Your task to perform on an android device: Go to Reddit.com Image 0: 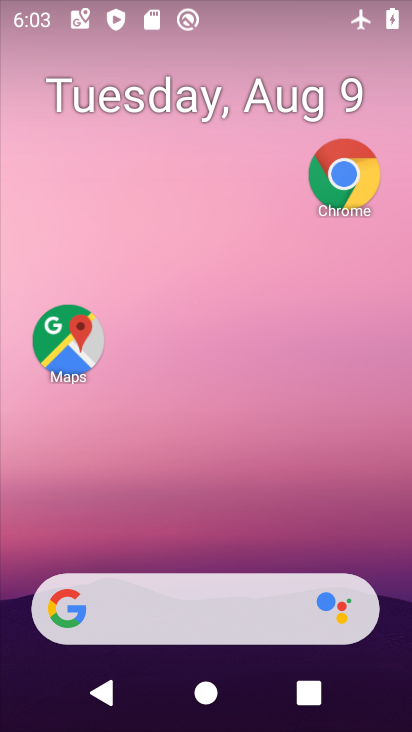
Step 0: drag from (197, 532) to (260, 92)
Your task to perform on an android device: Go to Reddit.com Image 1: 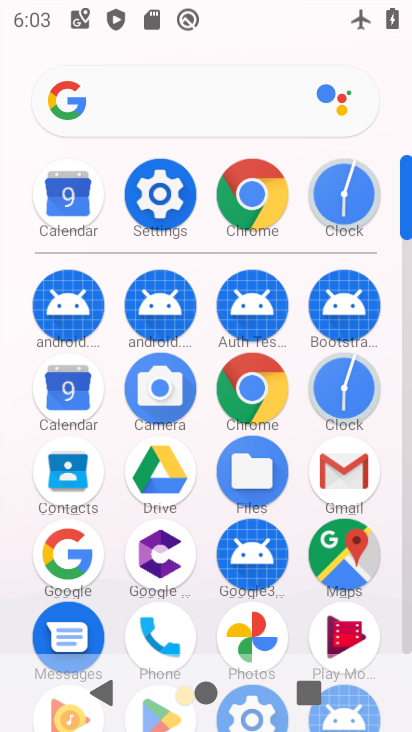
Step 1: drag from (211, 589) to (204, 230)
Your task to perform on an android device: Go to Reddit.com Image 2: 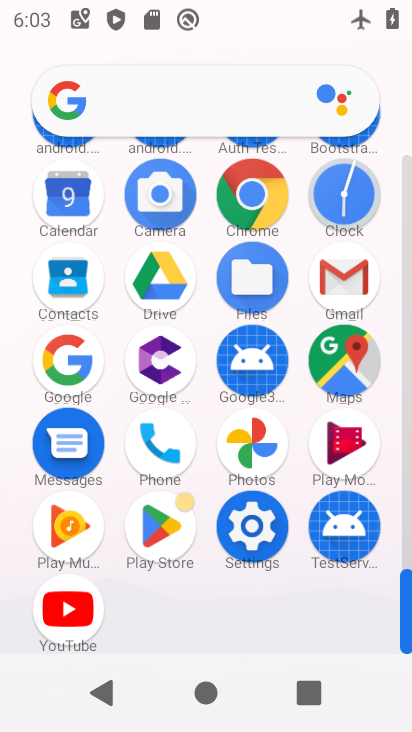
Step 2: drag from (226, 514) to (226, 157)
Your task to perform on an android device: Go to Reddit.com Image 3: 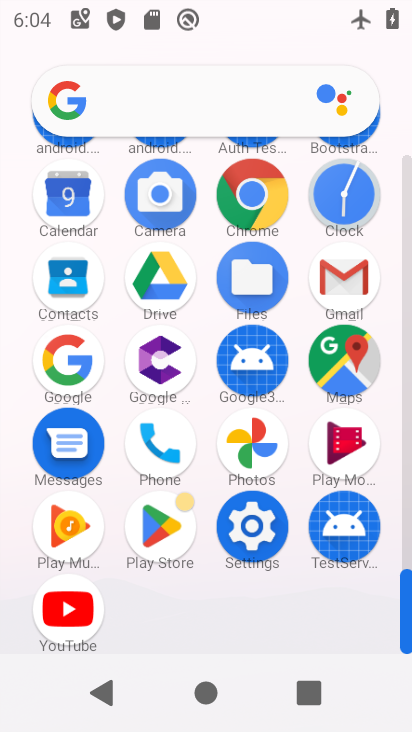
Step 3: click (183, 110)
Your task to perform on an android device: Go to Reddit.com Image 4: 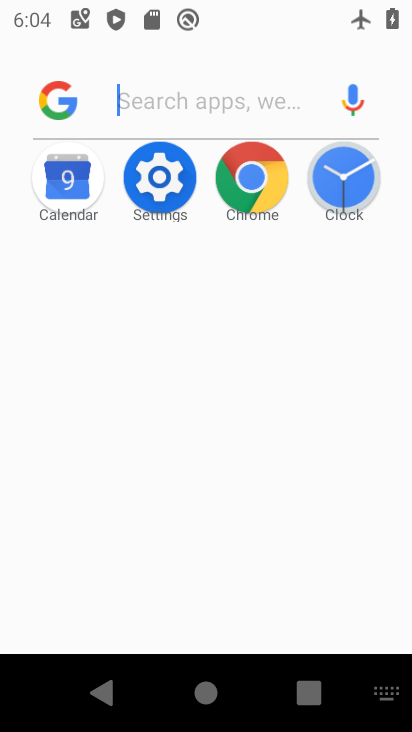
Step 4: type "Reddit.com"
Your task to perform on an android device: Go to Reddit.com Image 5: 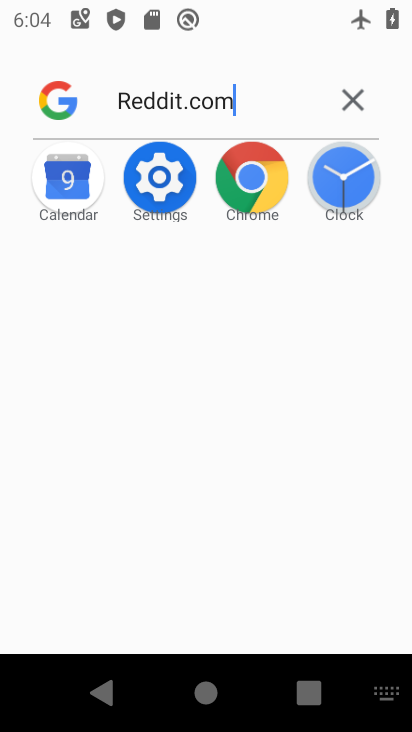
Step 5: type ""
Your task to perform on an android device: Go to Reddit.com Image 6: 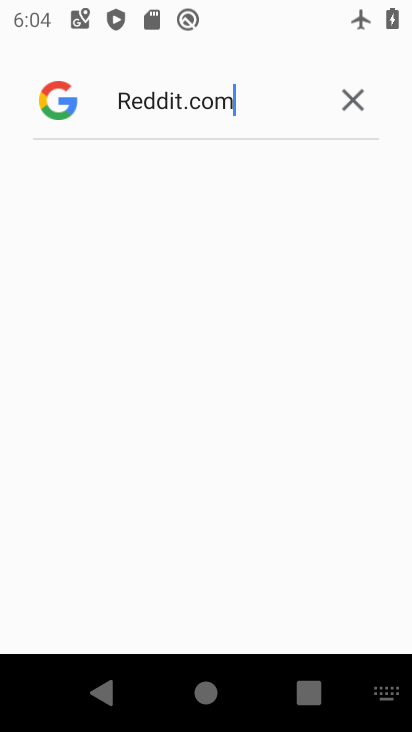
Step 6: click (164, 181)
Your task to perform on an android device: Go to Reddit.com Image 7: 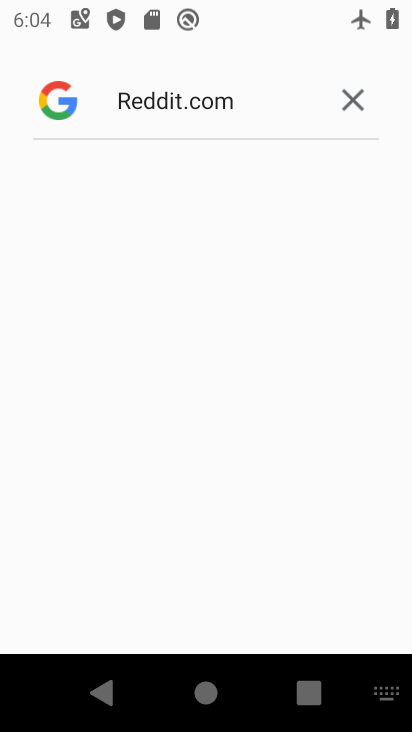
Step 7: click (173, 184)
Your task to perform on an android device: Go to Reddit.com Image 8: 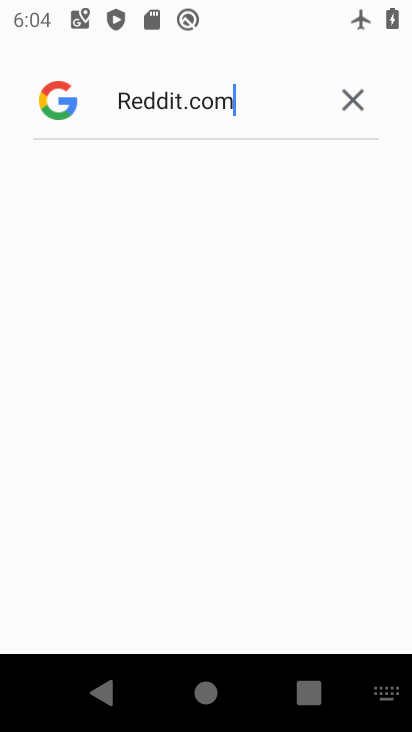
Step 8: click (163, 194)
Your task to perform on an android device: Go to Reddit.com Image 9: 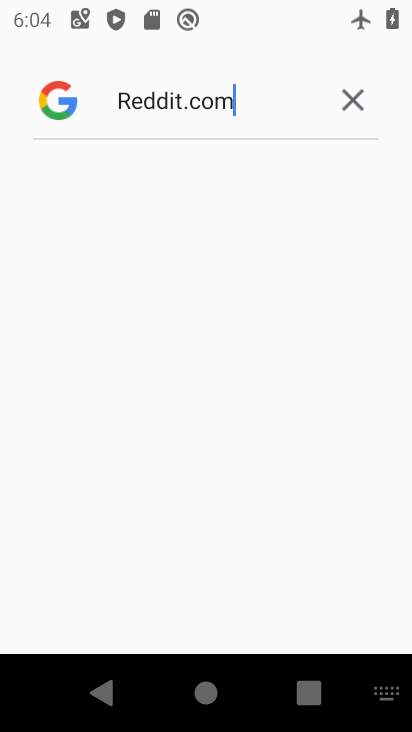
Step 9: click (240, 194)
Your task to perform on an android device: Go to Reddit.com Image 10: 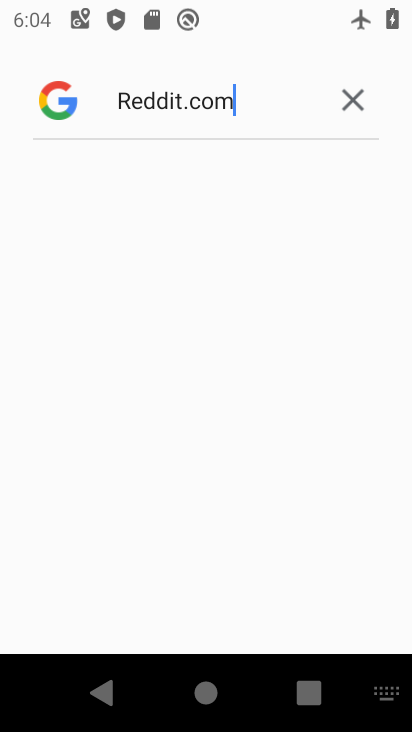
Step 10: click (350, 106)
Your task to perform on an android device: Go to Reddit.com Image 11: 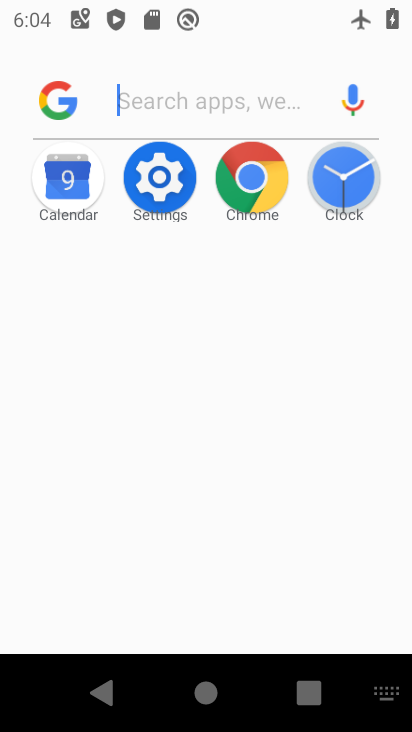
Step 11: press back button
Your task to perform on an android device: Go to Reddit.com Image 12: 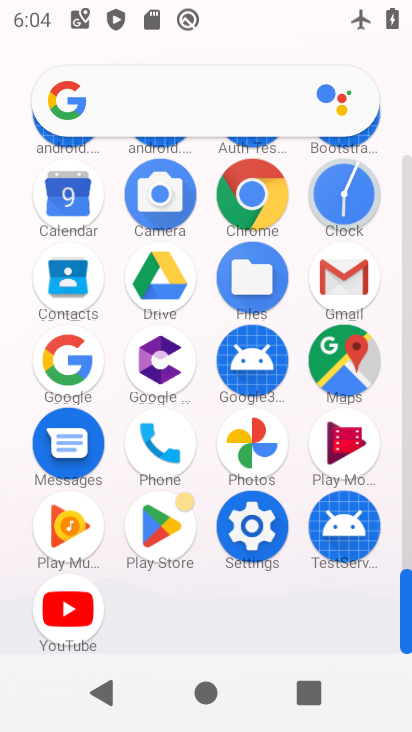
Step 12: drag from (220, 212) to (240, 455)
Your task to perform on an android device: Go to Reddit.com Image 13: 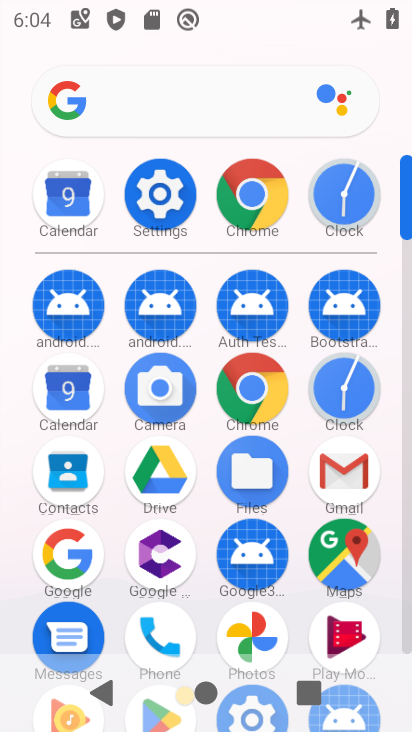
Step 13: drag from (224, 433) to (234, 324)
Your task to perform on an android device: Go to Reddit.com Image 14: 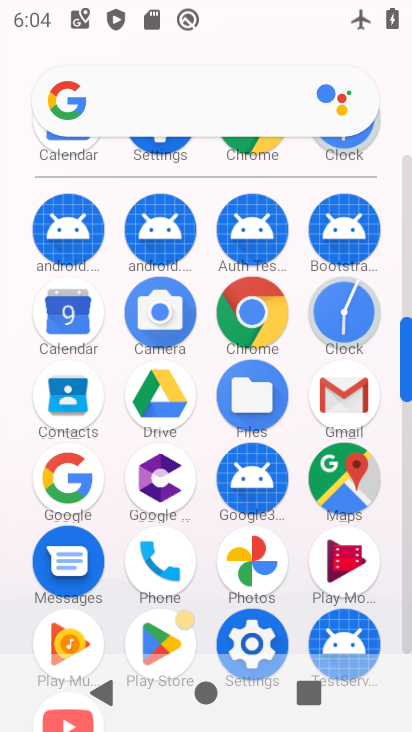
Step 14: drag from (216, 288) to (260, 530)
Your task to perform on an android device: Go to Reddit.com Image 15: 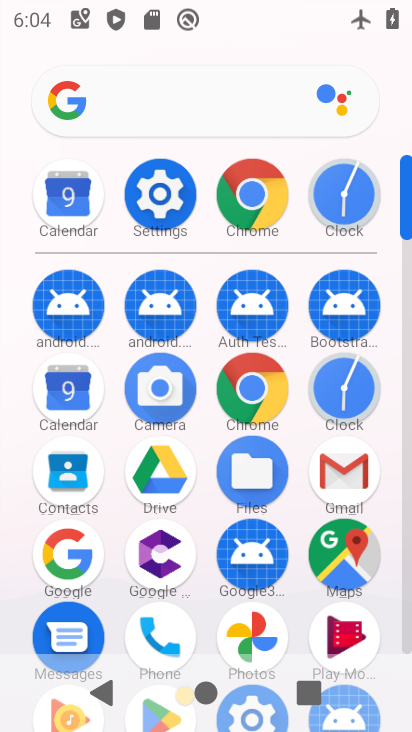
Step 15: drag from (204, 171) to (221, 431)
Your task to perform on an android device: Go to Reddit.com Image 16: 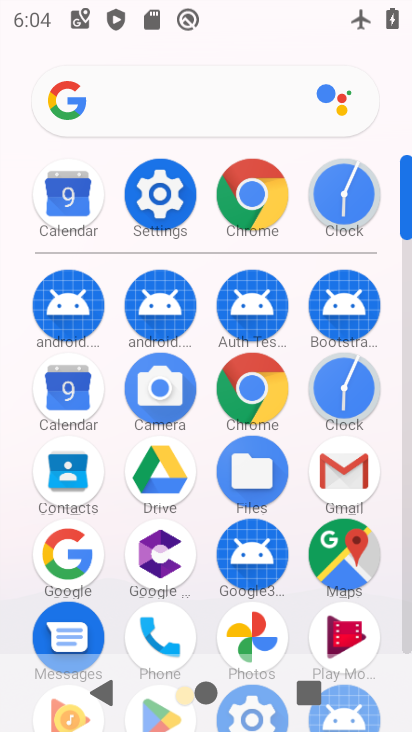
Step 16: click (244, 381)
Your task to perform on an android device: Go to Reddit.com Image 17: 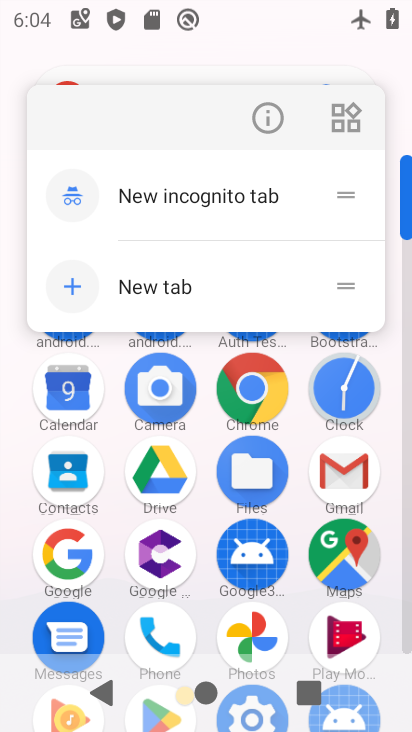
Step 17: click (280, 101)
Your task to perform on an android device: Go to Reddit.com Image 18: 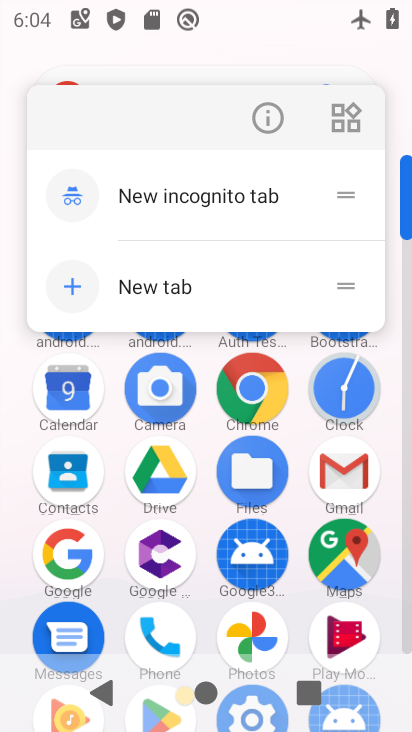
Step 18: click (278, 118)
Your task to perform on an android device: Go to Reddit.com Image 19: 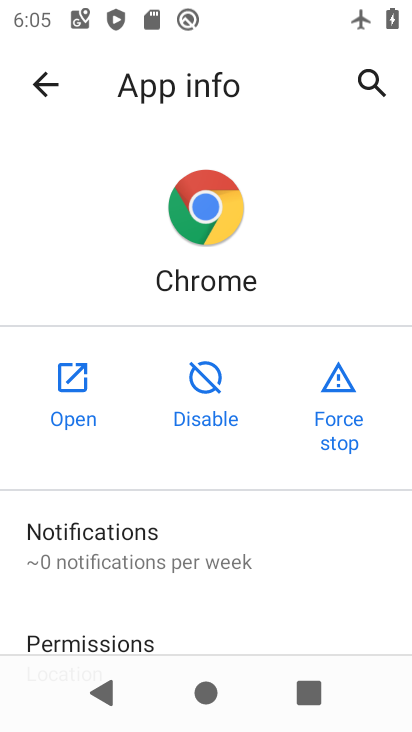
Step 19: click (82, 393)
Your task to perform on an android device: Go to Reddit.com Image 20: 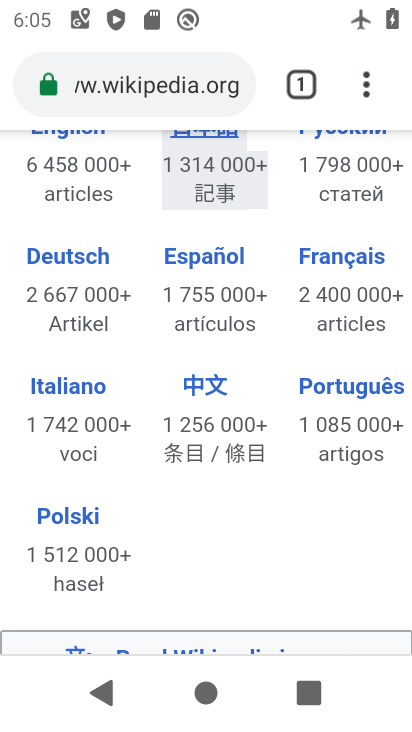
Step 20: drag from (257, 240) to (319, 626)
Your task to perform on an android device: Go to Reddit.com Image 21: 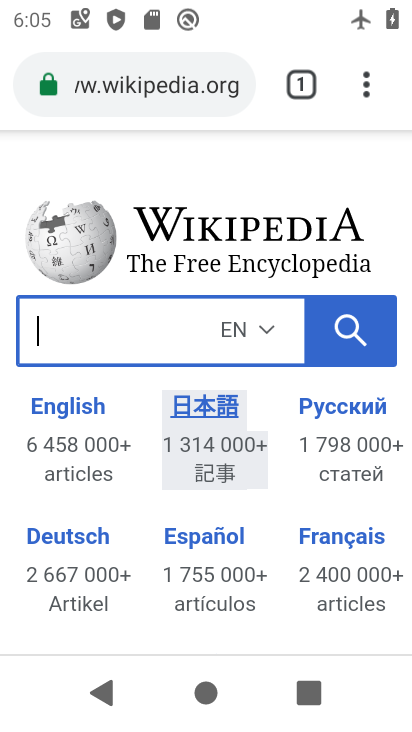
Step 21: drag from (285, 533) to (331, 305)
Your task to perform on an android device: Go to Reddit.com Image 22: 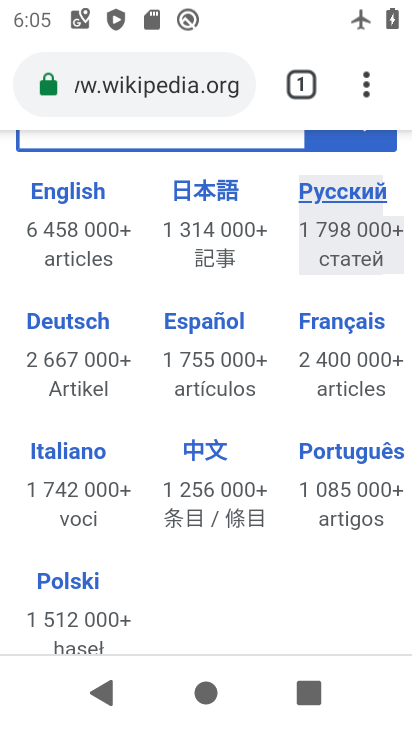
Step 22: drag from (201, 533) to (239, 341)
Your task to perform on an android device: Go to Reddit.com Image 23: 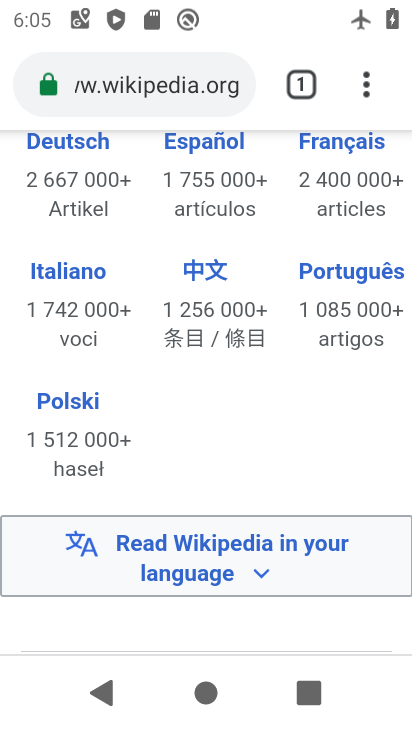
Step 23: drag from (235, 384) to (222, 530)
Your task to perform on an android device: Go to Reddit.com Image 24: 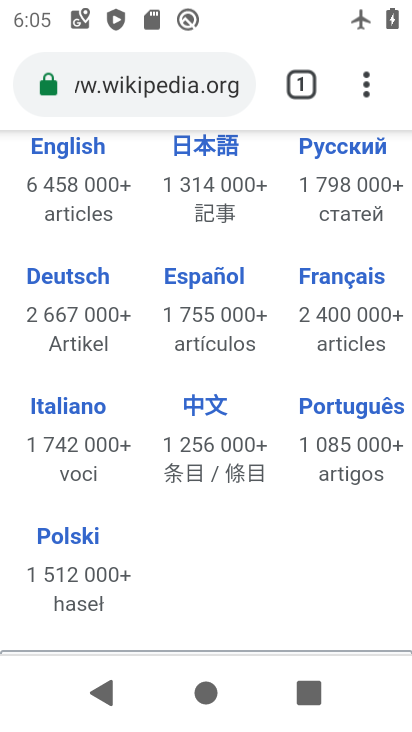
Step 24: drag from (206, 545) to (202, 661)
Your task to perform on an android device: Go to Reddit.com Image 25: 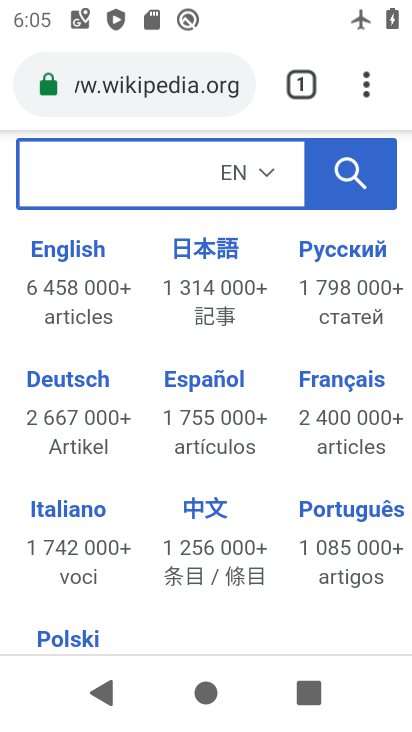
Step 25: drag from (206, 601) to (301, 337)
Your task to perform on an android device: Go to Reddit.com Image 26: 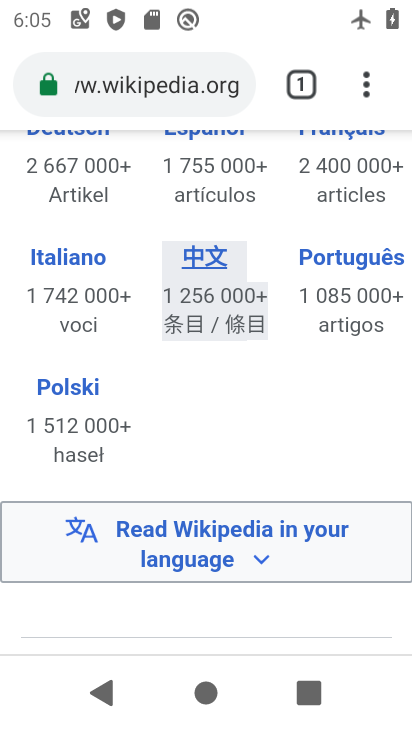
Step 26: drag from (227, 198) to (272, 523)
Your task to perform on an android device: Go to Reddit.com Image 27: 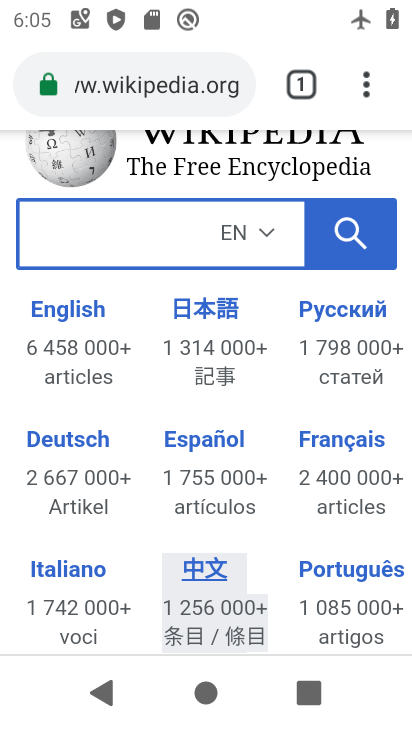
Step 27: click (142, 102)
Your task to perform on an android device: Go to Reddit.com Image 28: 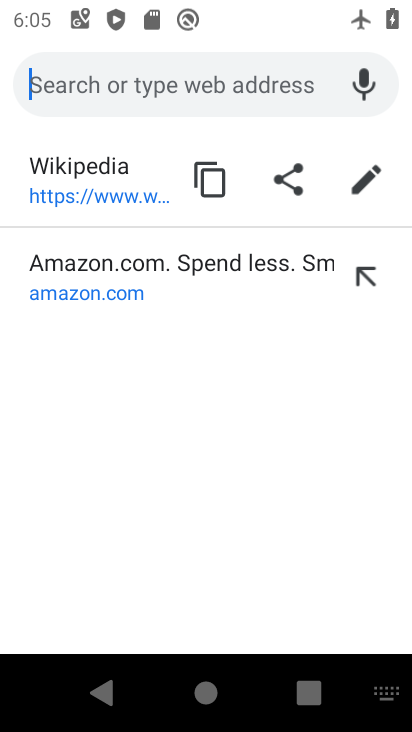
Step 28: click (171, 79)
Your task to perform on an android device: Go to Reddit.com Image 29: 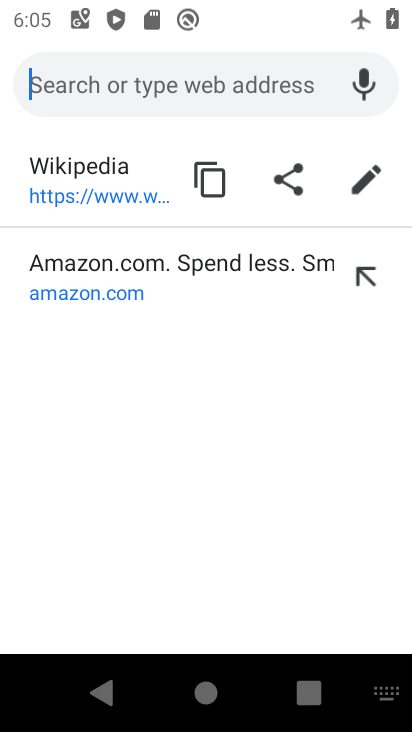
Step 29: type "Reddit.com"
Your task to perform on an android device: Go to Reddit.com Image 30: 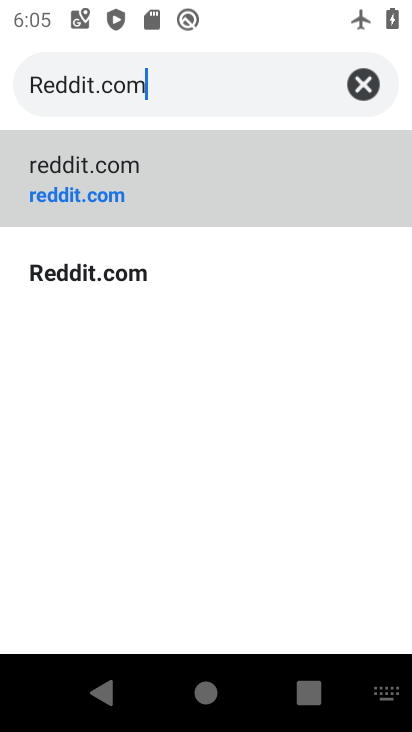
Step 30: type ""
Your task to perform on an android device: Go to Reddit.com Image 31: 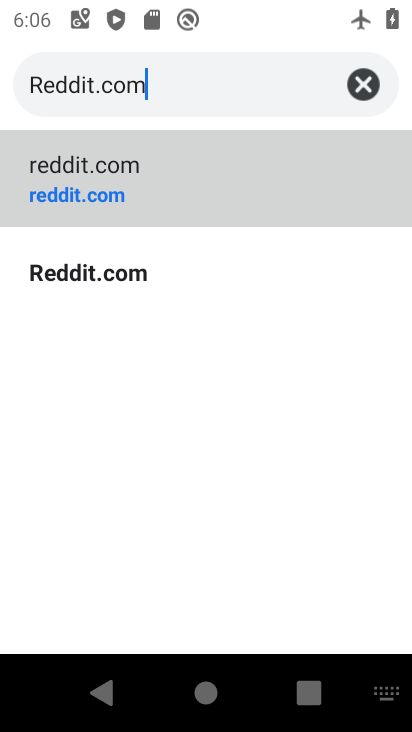
Step 31: click (63, 174)
Your task to perform on an android device: Go to Reddit.com Image 32: 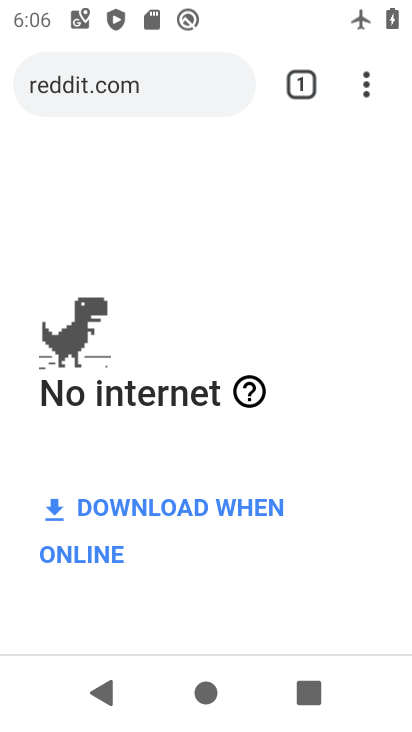
Step 32: task complete